Your task to perform on an android device: open sync settings in chrome Image 0: 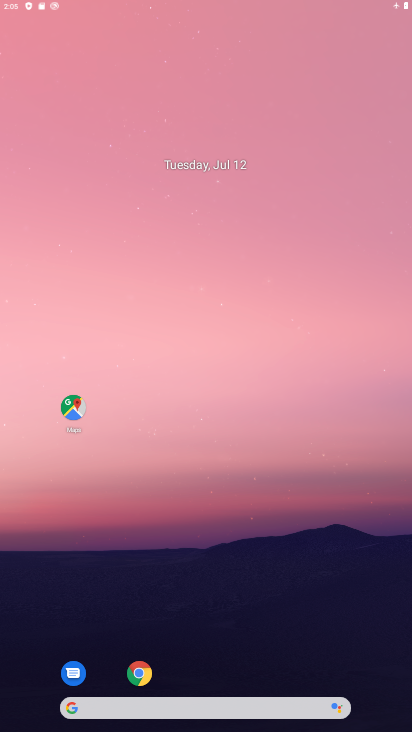
Step 0: click (180, 304)
Your task to perform on an android device: open sync settings in chrome Image 1: 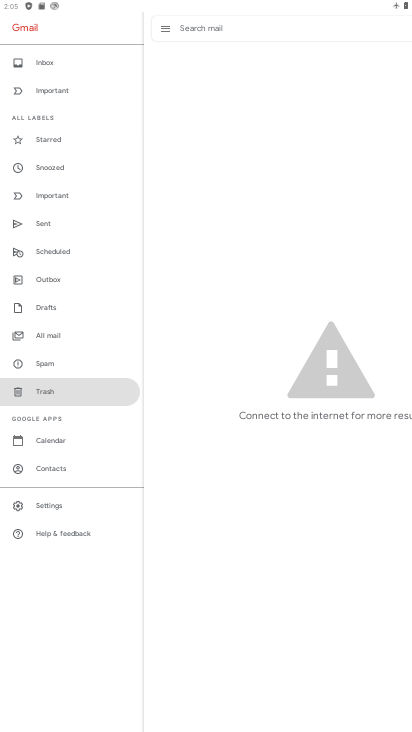
Step 1: press home button
Your task to perform on an android device: open sync settings in chrome Image 2: 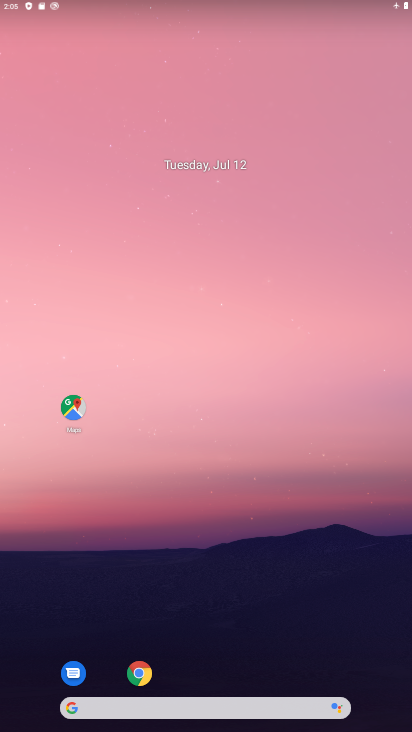
Step 2: drag from (209, 638) to (199, 249)
Your task to perform on an android device: open sync settings in chrome Image 3: 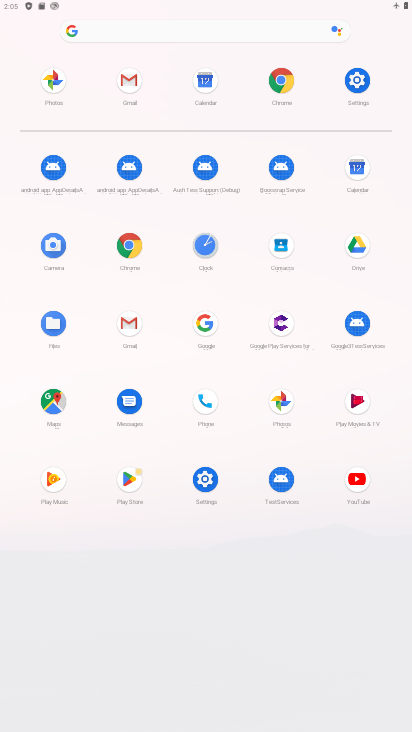
Step 3: click (289, 78)
Your task to perform on an android device: open sync settings in chrome Image 4: 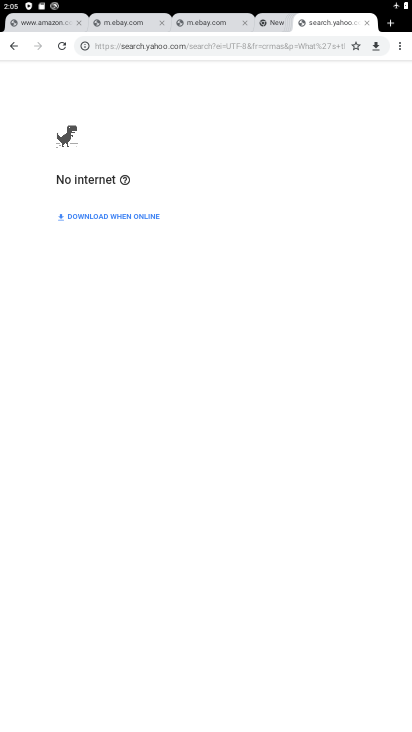
Step 4: click (396, 47)
Your task to perform on an android device: open sync settings in chrome Image 5: 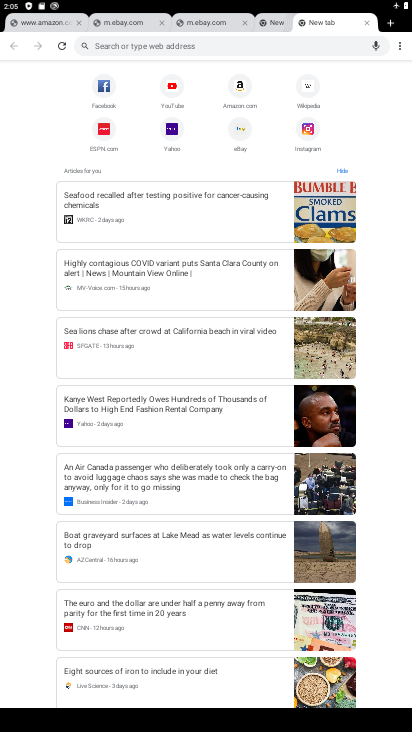
Step 5: click (408, 47)
Your task to perform on an android device: open sync settings in chrome Image 6: 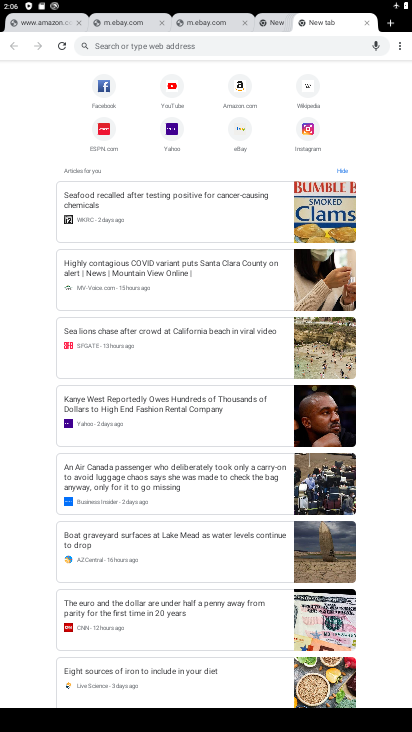
Step 6: click (399, 44)
Your task to perform on an android device: open sync settings in chrome Image 7: 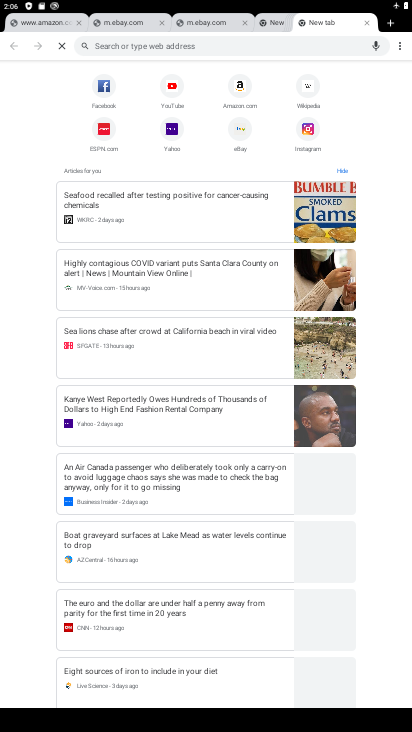
Step 7: click (399, 44)
Your task to perform on an android device: open sync settings in chrome Image 8: 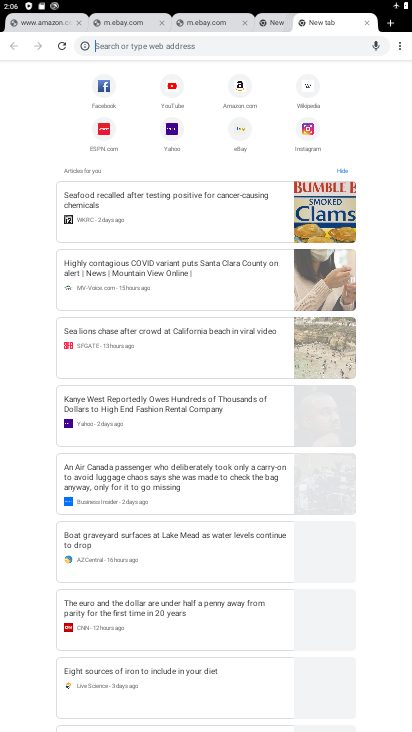
Step 8: click (399, 44)
Your task to perform on an android device: open sync settings in chrome Image 9: 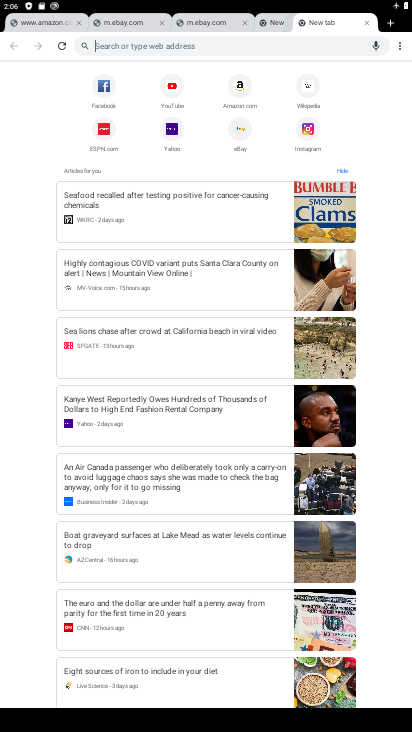
Step 9: click (404, 34)
Your task to perform on an android device: open sync settings in chrome Image 10: 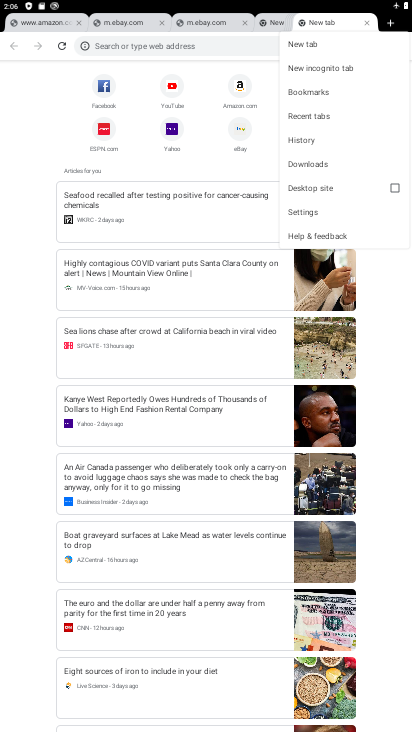
Step 10: click (315, 218)
Your task to perform on an android device: open sync settings in chrome Image 11: 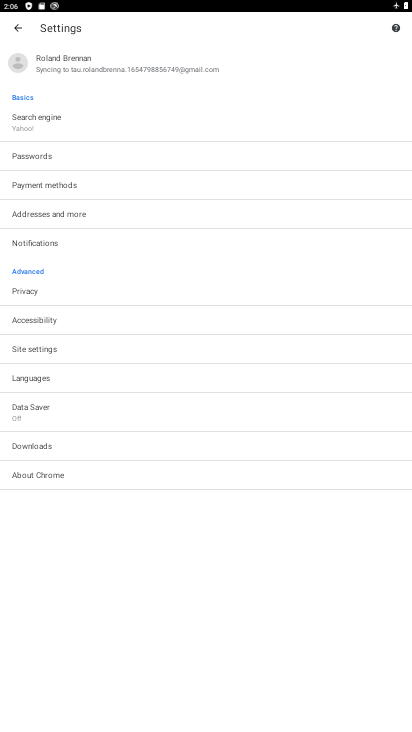
Step 11: click (48, 131)
Your task to perform on an android device: open sync settings in chrome Image 12: 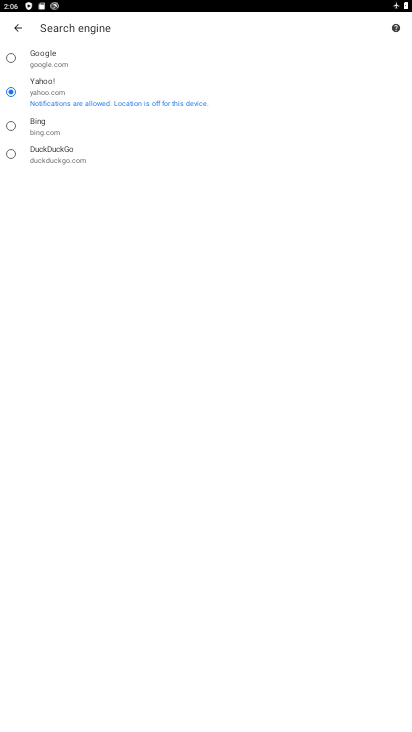
Step 12: click (21, 23)
Your task to perform on an android device: open sync settings in chrome Image 13: 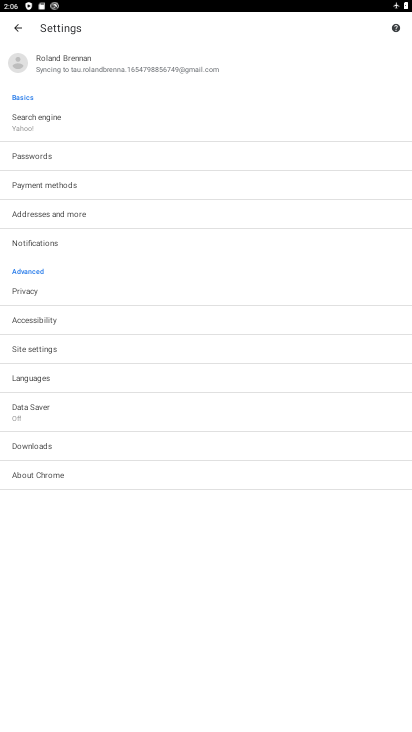
Step 13: click (96, 57)
Your task to perform on an android device: open sync settings in chrome Image 14: 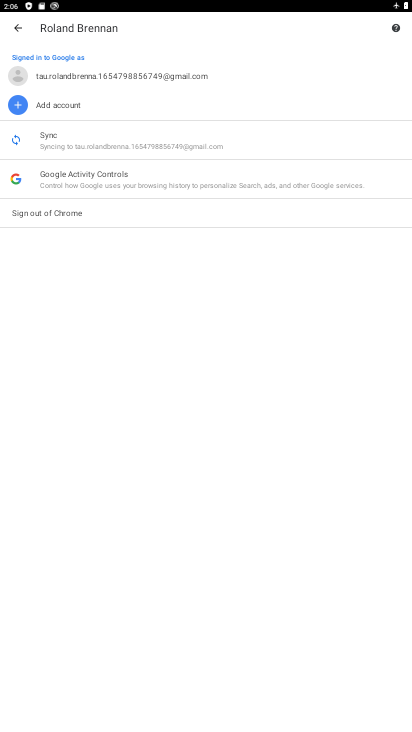
Step 14: click (93, 141)
Your task to perform on an android device: open sync settings in chrome Image 15: 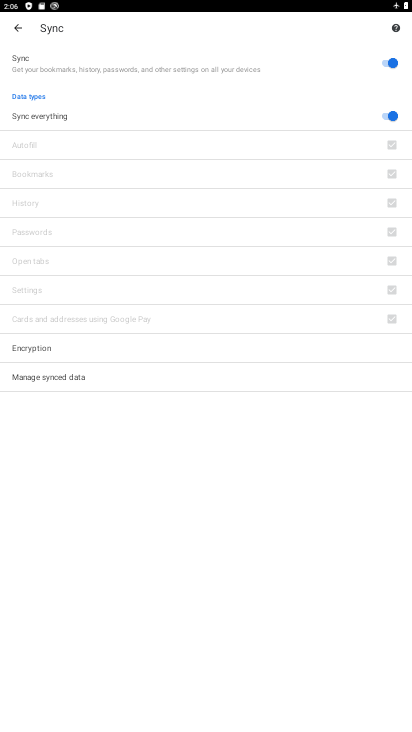
Step 15: task complete